Your task to perform on an android device: Go to display settings Image 0: 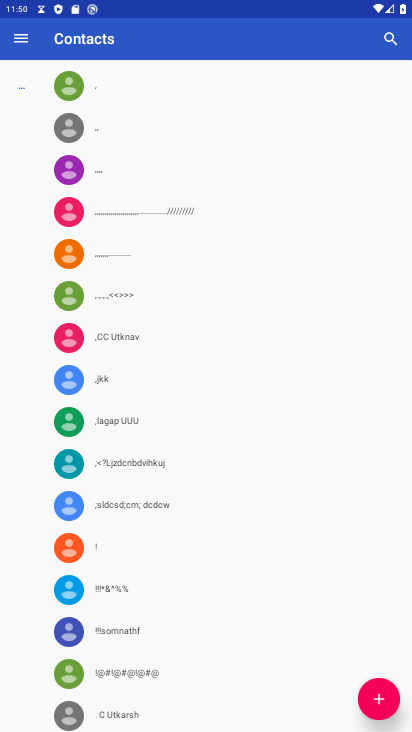
Step 0: press home button
Your task to perform on an android device: Go to display settings Image 1: 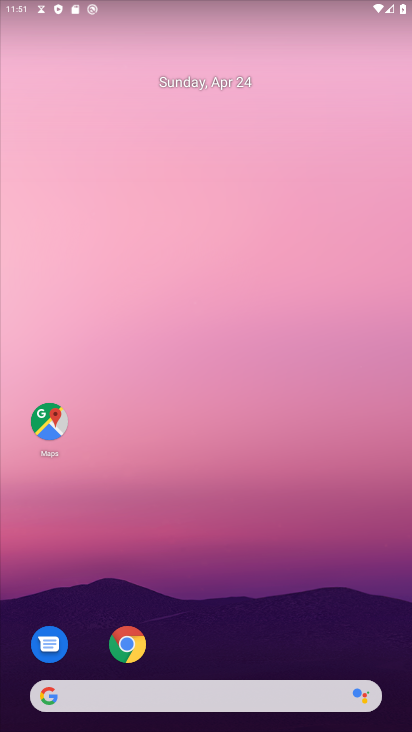
Step 1: drag from (333, 652) to (353, 121)
Your task to perform on an android device: Go to display settings Image 2: 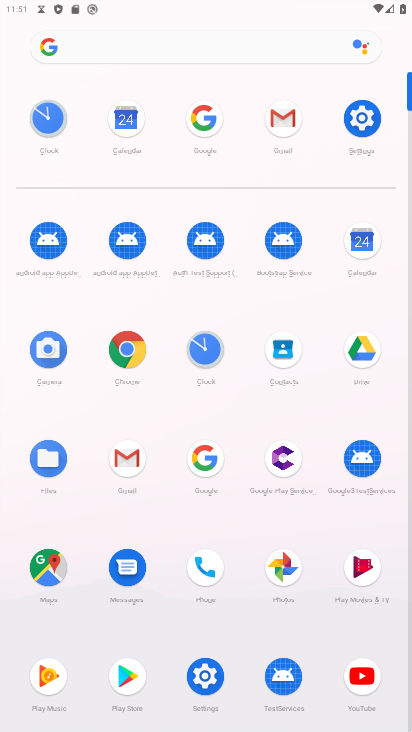
Step 2: click (361, 122)
Your task to perform on an android device: Go to display settings Image 3: 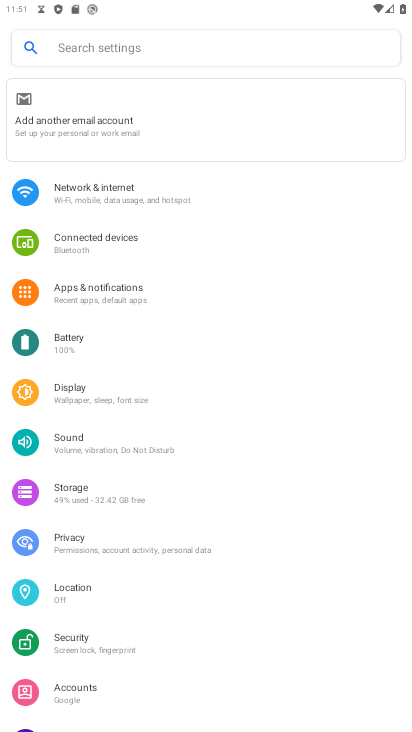
Step 3: click (88, 396)
Your task to perform on an android device: Go to display settings Image 4: 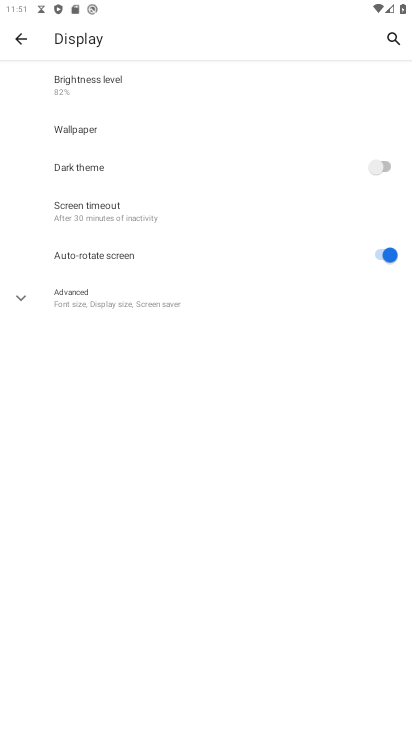
Step 4: task complete